Your task to perform on an android device: turn off wifi Image 0: 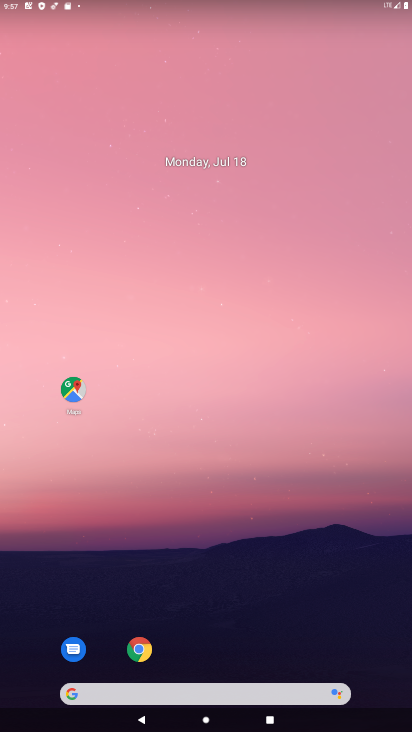
Step 0: drag from (181, 713) to (219, 212)
Your task to perform on an android device: turn off wifi Image 1: 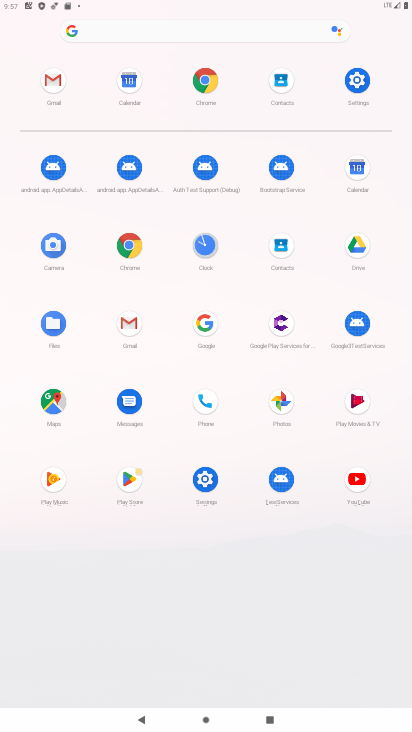
Step 1: click (351, 78)
Your task to perform on an android device: turn off wifi Image 2: 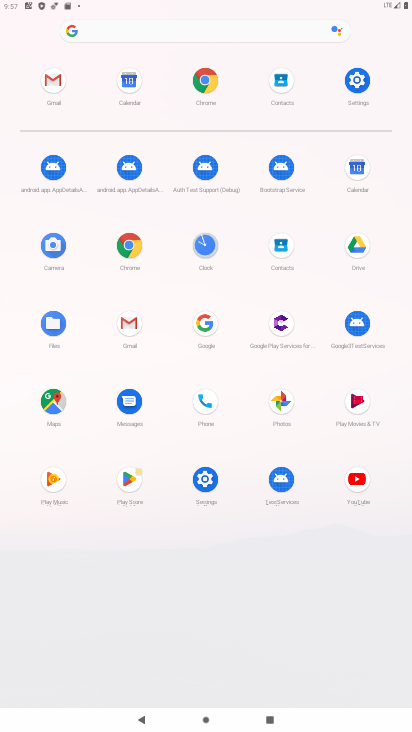
Step 2: click (351, 78)
Your task to perform on an android device: turn off wifi Image 3: 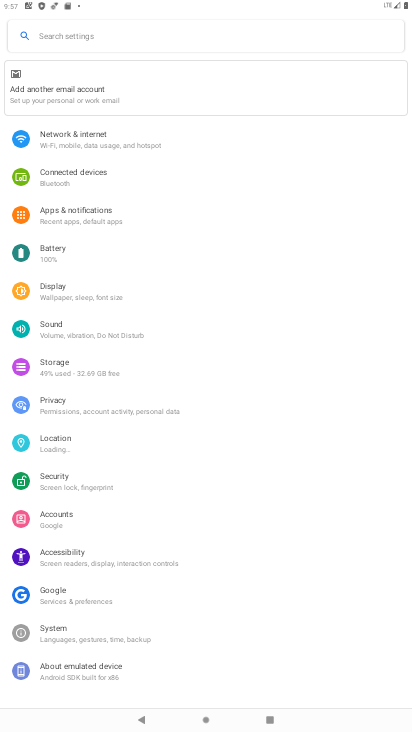
Step 3: click (182, 141)
Your task to perform on an android device: turn off wifi Image 4: 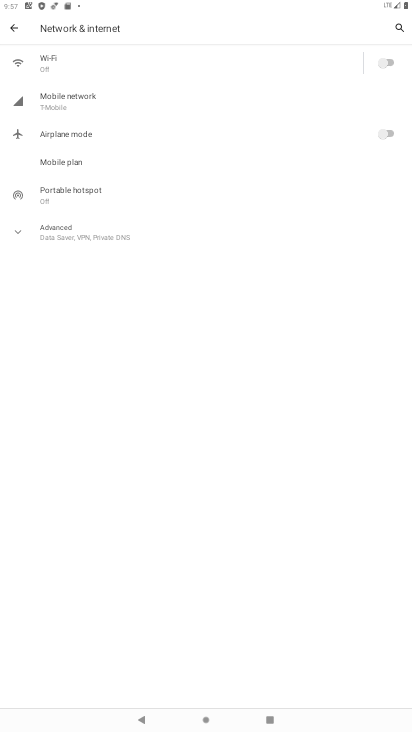
Step 4: click (220, 61)
Your task to perform on an android device: turn off wifi Image 5: 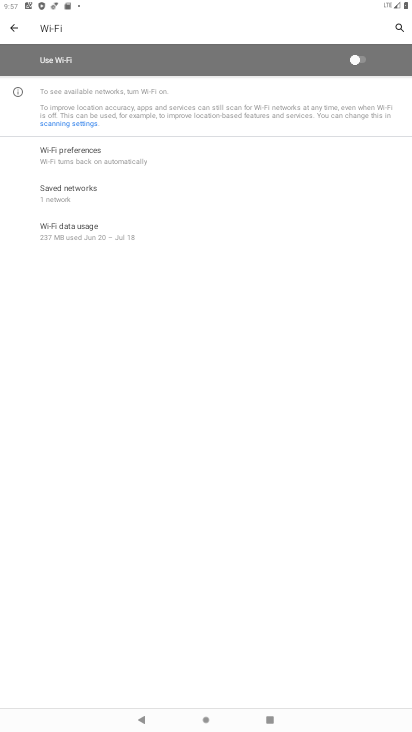
Step 5: task complete